Your task to perform on an android device: Open calendar and show me the fourth week of next month Image 0: 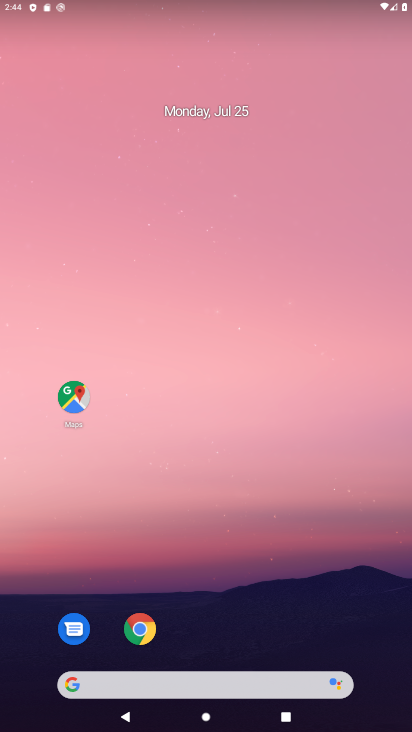
Step 0: drag from (233, 667) to (241, 5)
Your task to perform on an android device: Open calendar and show me the fourth week of next month Image 1: 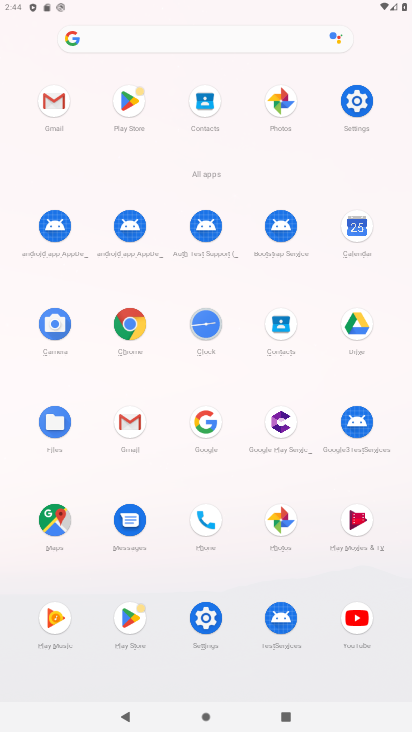
Step 1: click (373, 207)
Your task to perform on an android device: Open calendar and show me the fourth week of next month Image 2: 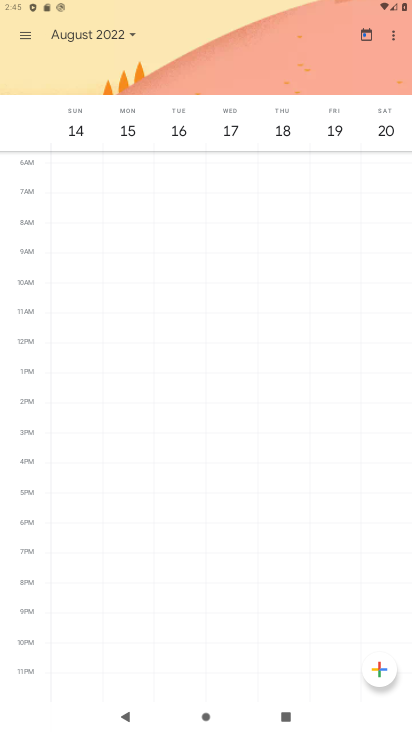
Step 2: click (90, 305)
Your task to perform on an android device: Open calendar and show me the fourth week of next month Image 3: 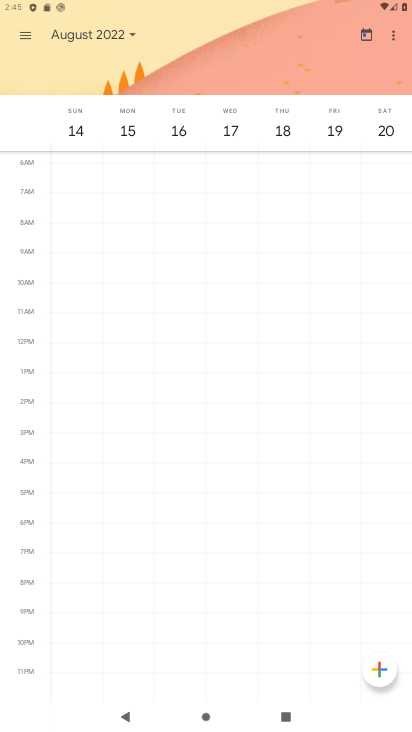
Step 3: drag from (90, 306) to (187, 304)
Your task to perform on an android device: Open calendar and show me the fourth week of next month Image 4: 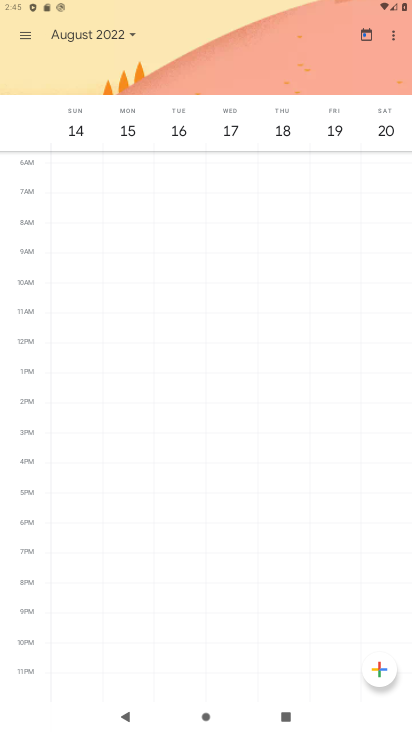
Step 4: click (363, 34)
Your task to perform on an android device: Open calendar and show me the fourth week of next month Image 5: 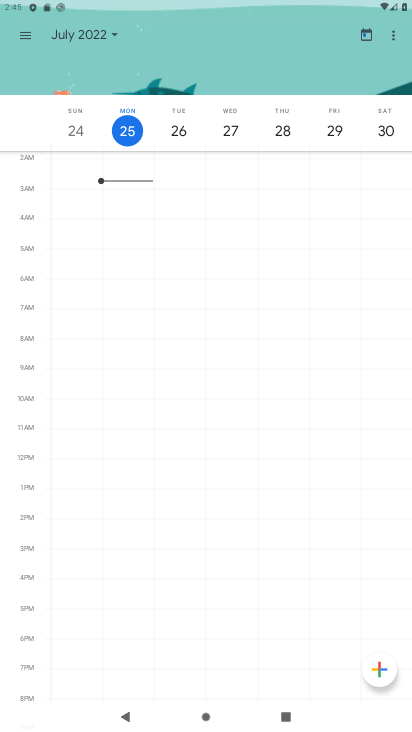
Step 5: click (112, 35)
Your task to perform on an android device: Open calendar and show me the fourth week of next month Image 6: 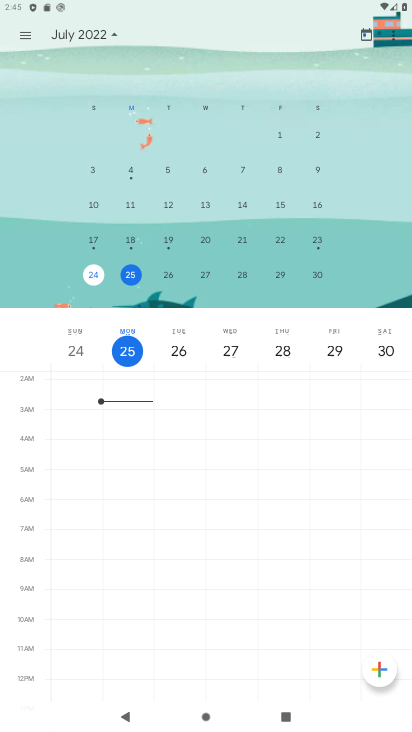
Step 6: drag from (228, 184) to (13, 255)
Your task to perform on an android device: Open calendar and show me the fourth week of next month Image 7: 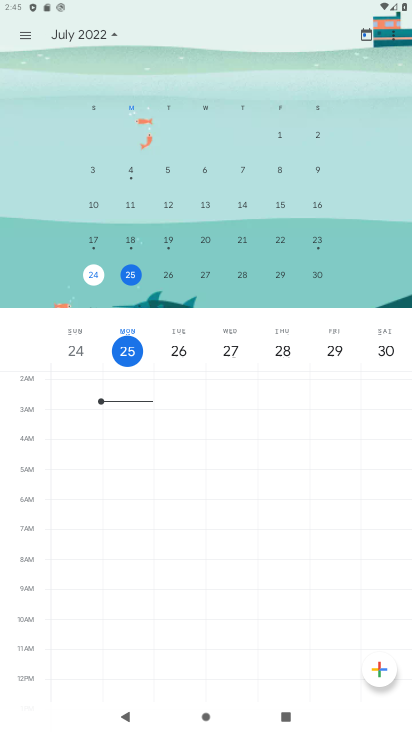
Step 7: drag from (359, 223) to (11, 316)
Your task to perform on an android device: Open calendar and show me the fourth week of next month Image 8: 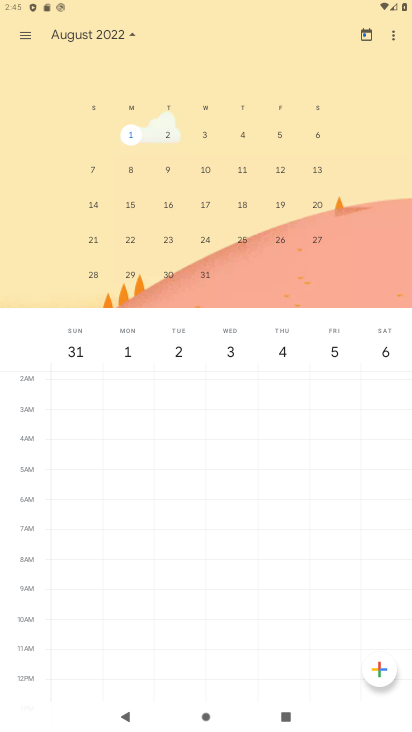
Step 8: click (25, 39)
Your task to perform on an android device: Open calendar and show me the fourth week of next month Image 9: 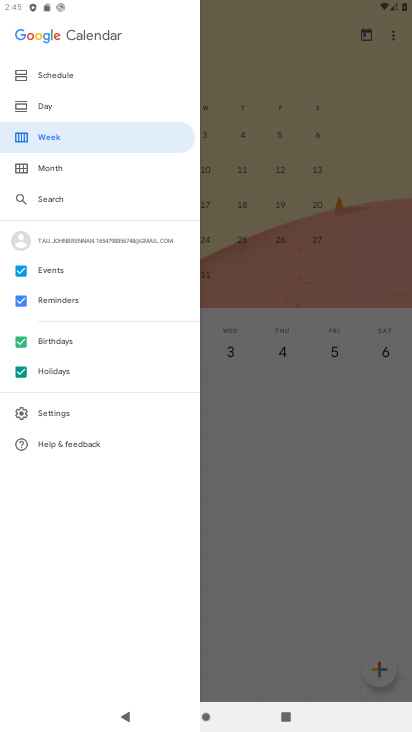
Step 9: click (25, 145)
Your task to perform on an android device: Open calendar and show me the fourth week of next month Image 10: 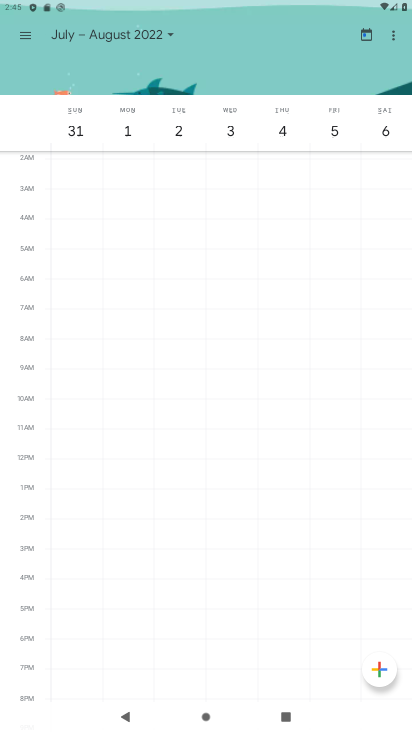
Step 10: task complete